Your task to perform on an android device: turn on data saver in the chrome app Image 0: 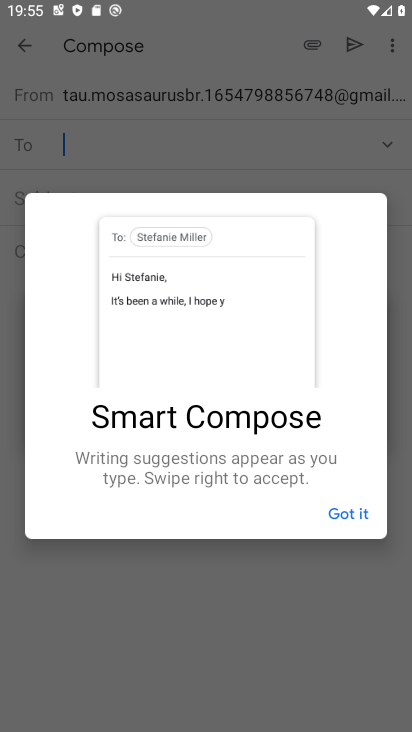
Step 0: press home button
Your task to perform on an android device: turn on data saver in the chrome app Image 1: 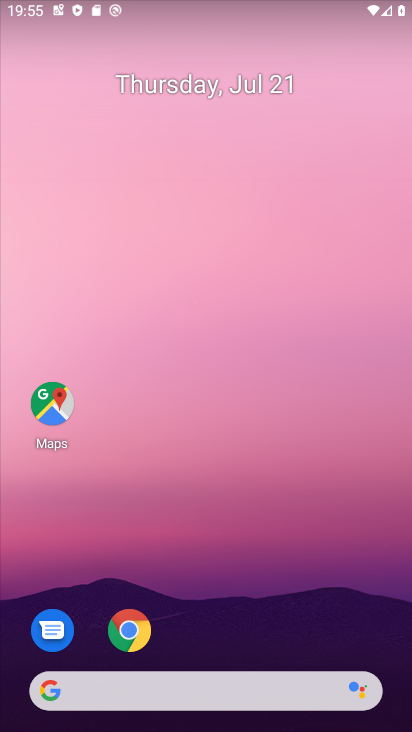
Step 1: click (124, 646)
Your task to perform on an android device: turn on data saver in the chrome app Image 2: 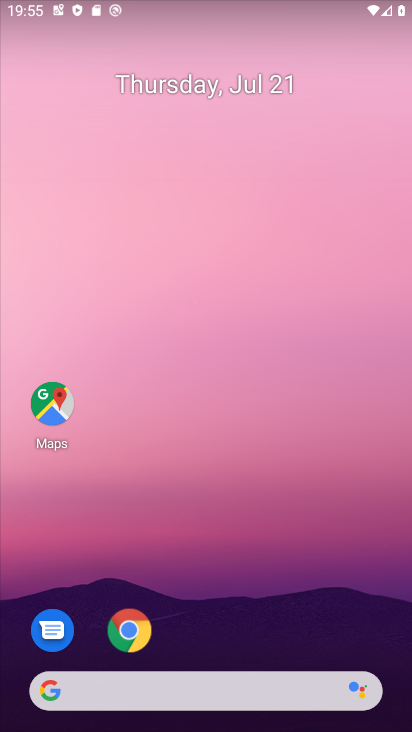
Step 2: click (124, 646)
Your task to perform on an android device: turn on data saver in the chrome app Image 3: 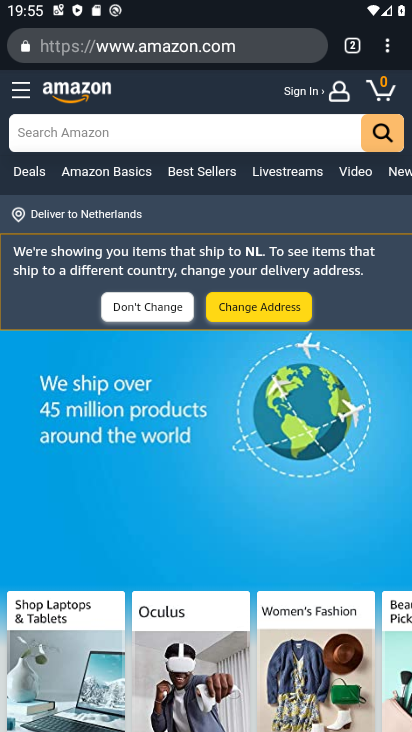
Step 3: click (392, 47)
Your task to perform on an android device: turn on data saver in the chrome app Image 4: 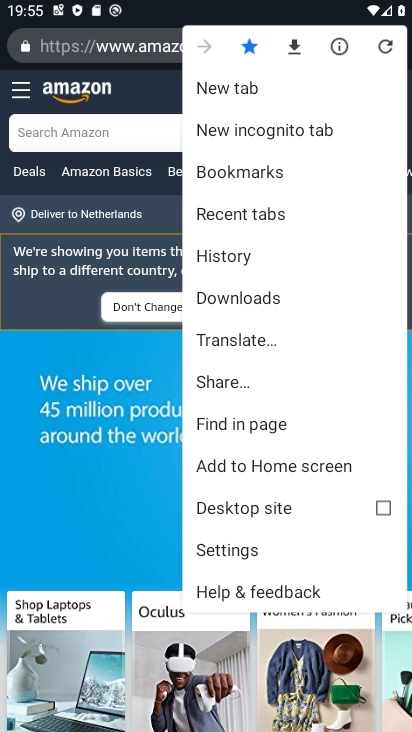
Step 4: click (244, 551)
Your task to perform on an android device: turn on data saver in the chrome app Image 5: 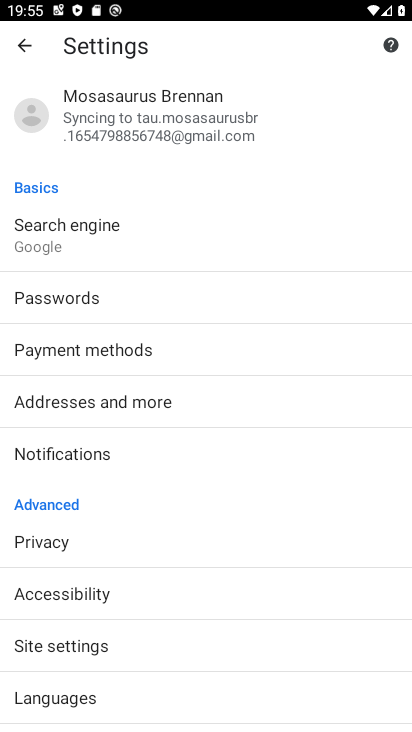
Step 5: drag from (164, 666) to (90, 8)
Your task to perform on an android device: turn on data saver in the chrome app Image 6: 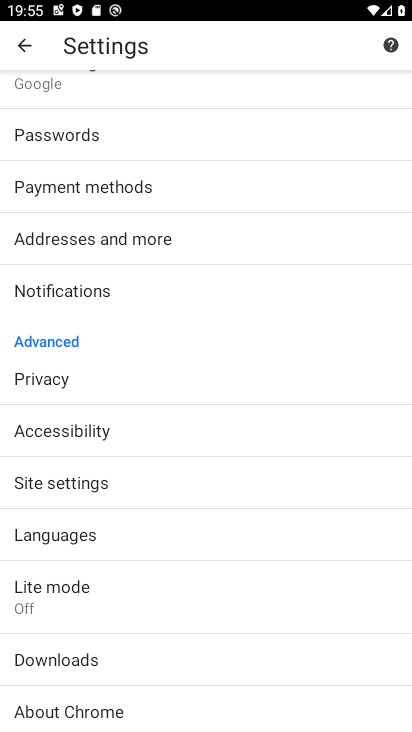
Step 6: drag from (242, 675) to (30, 78)
Your task to perform on an android device: turn on data saver in the chrome app Image 7: 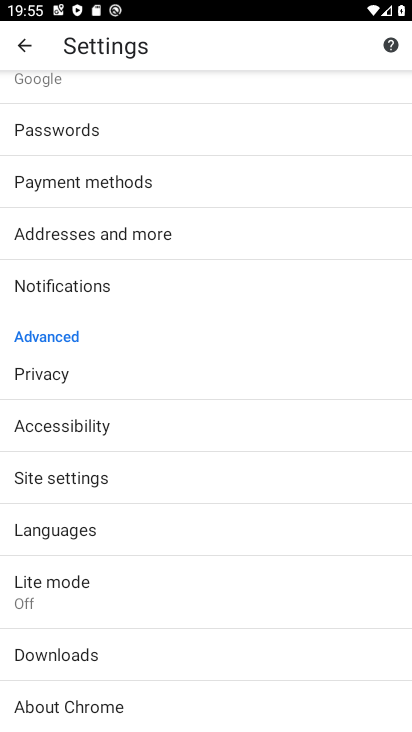
Step 7: click (132, 595)
Your task to perform on an android device: turn on data saver in the chrome app Image 8: 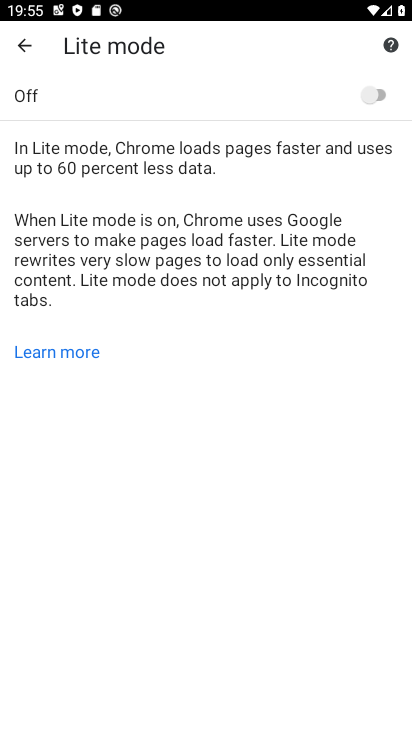
Step 8: click (367, 99)
Your task to perform on an android device: turn on data saver in the chrome app Image 9: 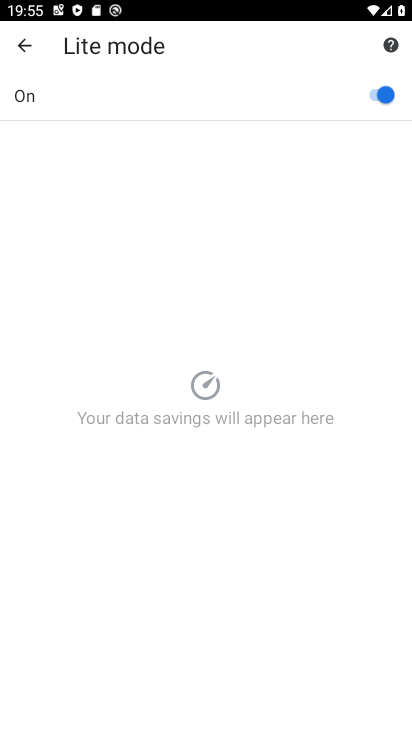
Step 9: task complete